Your task to perform on an android device: Open Reddit.com Image 0: 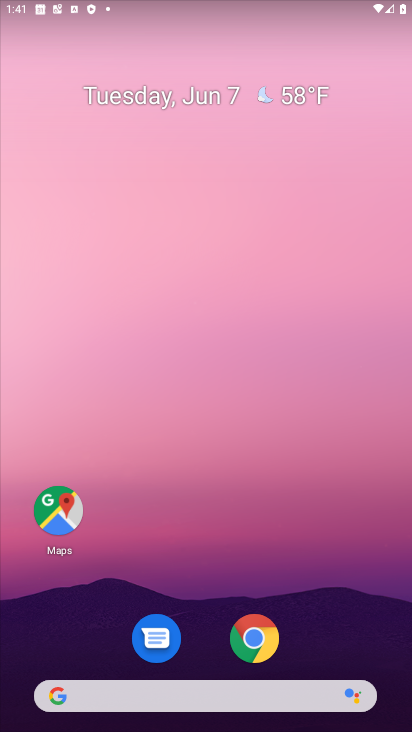
Step 0: drag from (199, 625) to (249, 297)
Your task to perform on an android device: Open Reddit.com Image 1: 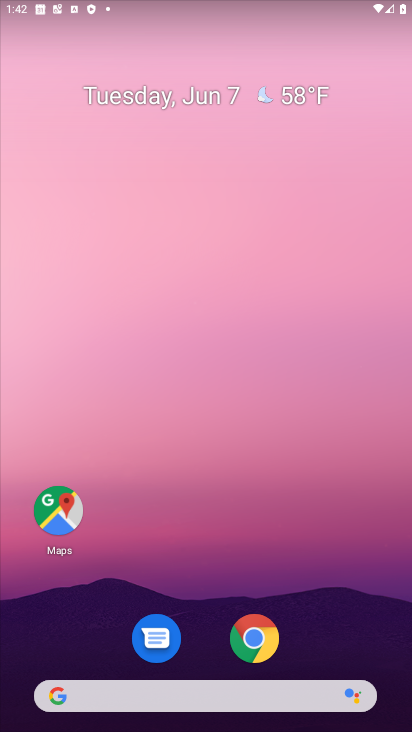
Step 1: drag from (215, 490) to (282, 228)
Your task to perform on an android device: Open Reddit.com Image 2: 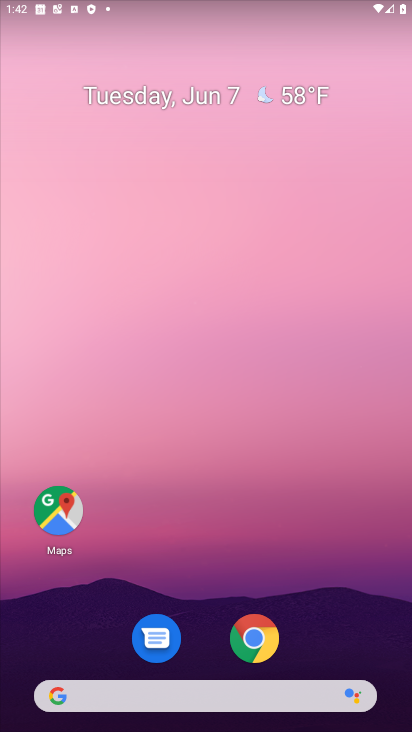
Step 2: click (247, 634)
Your task to perform on an android device: Open Reddit.com Image 3: 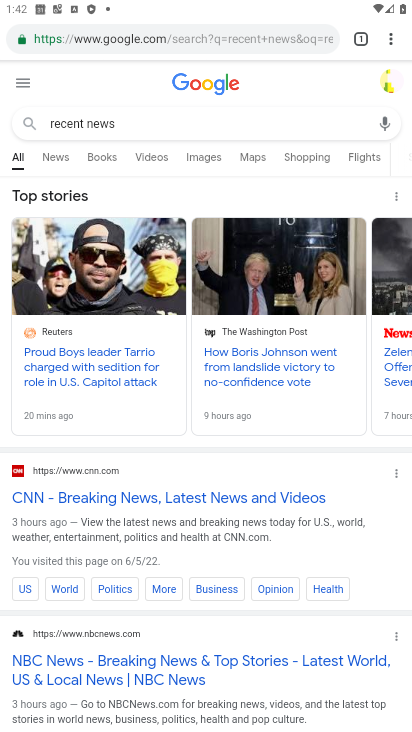
Step 3: click (114, 42)
Your task to perform on an android device: Open Reddit.com Image 4: 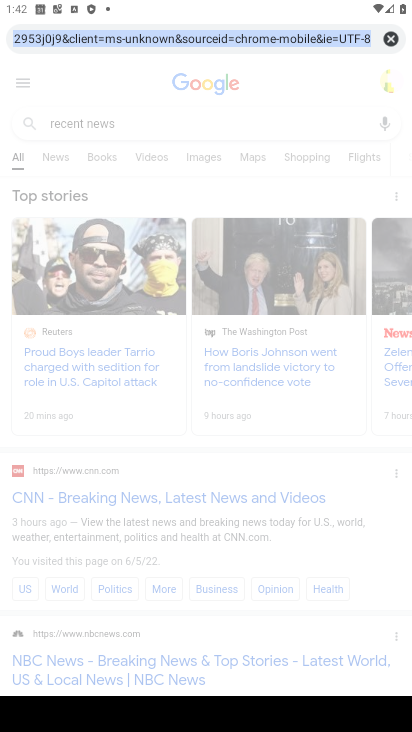
Step 4: type "Reddit.com"
Your task to perform on an android device: Open Reddit.com Image 5: 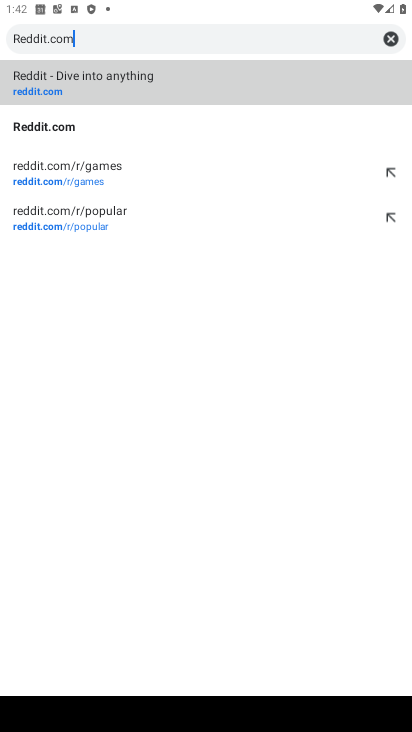
Step 5: click (55, 130)
Your task to perform on an android device: Open Reddit.com Image 6: 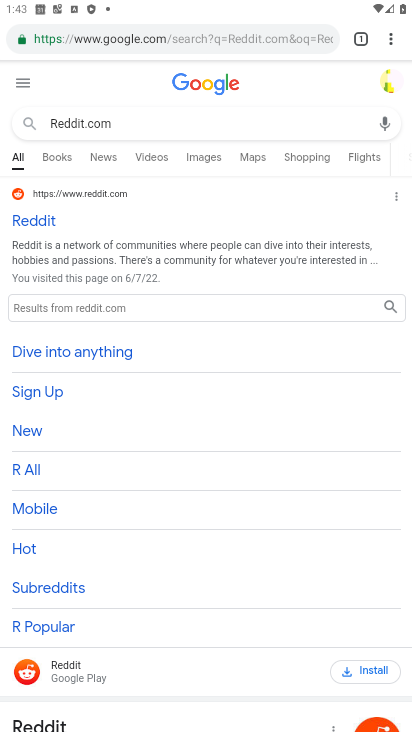
Step 6: task complete